Your task to perform on an android device: find photos in the google photos app Image 0: 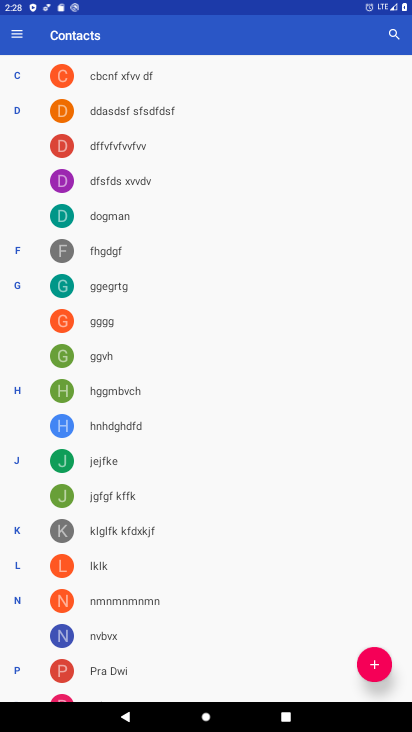
Step 0: press home button
Your task to perform on an android device: find photos in the google photos app Image 1: 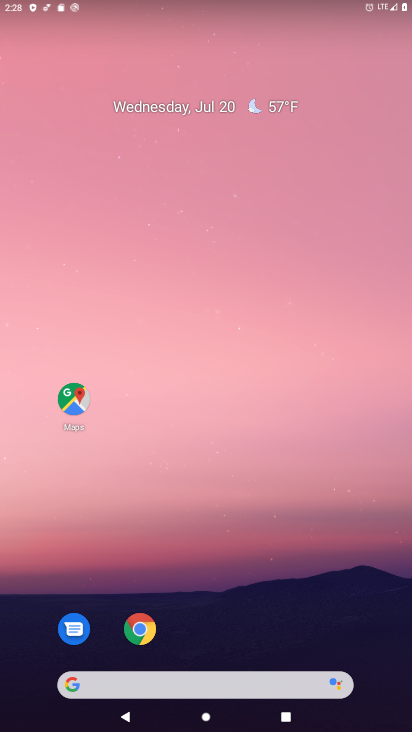
Step 1: drag from (383, 660) to (333, 82)
Your task to perform on an android device: find photos in the google photos app Image 2: 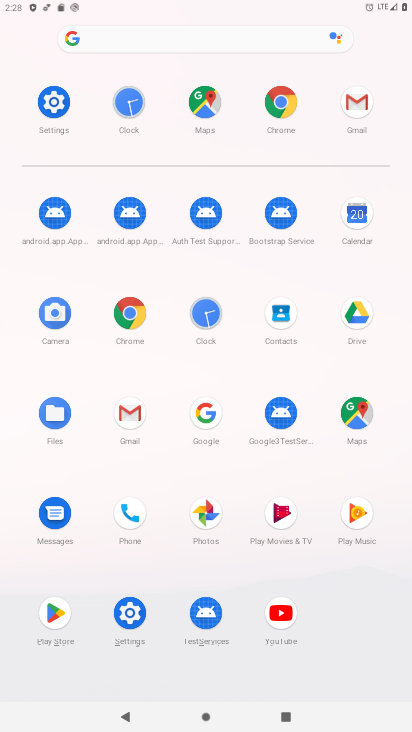
Step 2: click (206, 513)
Your task to perform on an android device: find photos in the google photos app Image 3: 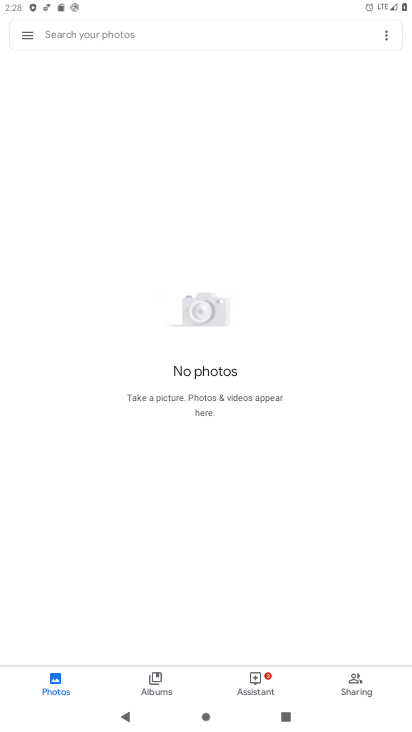
Step 3: task complete